Your task to perform on an android device: Go to accessibility settings Image 0: 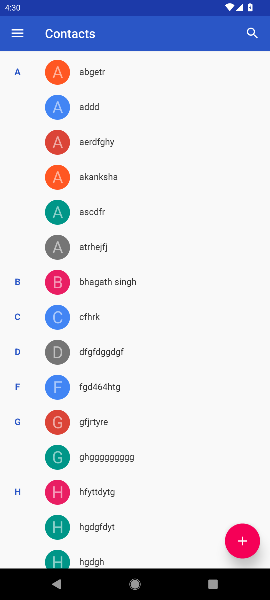
Step 0: press home button
Your task to perform on an android device: Go to accessibility settings Image 1: 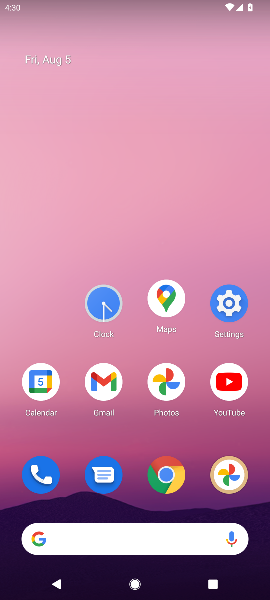
Step 1: click (216, 308)
Your task to perform on an android device: Go to accessibility settings Image 2: 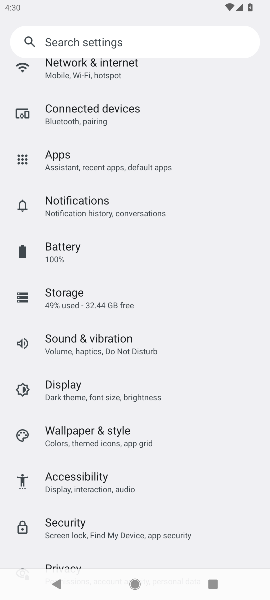
Step 2: click (66, 489)
Your task to perform on an android device: Go to accessibility settings Image 3: 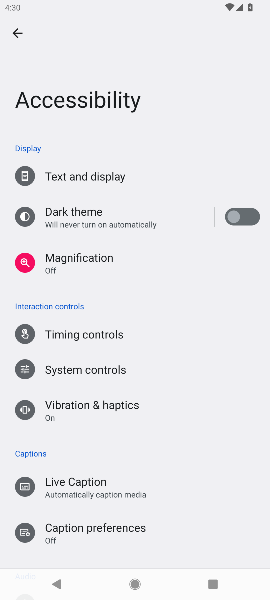
Step 3: task complete